Your task to perform on an android device: turn on javascript in the chrome app Image 0: 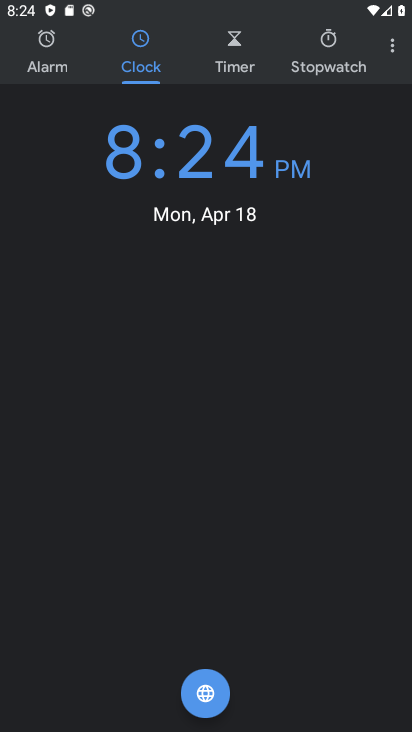
Step 0: press home button
Your task to perform on an android device: turn on javascript in the chrome app Image 1: 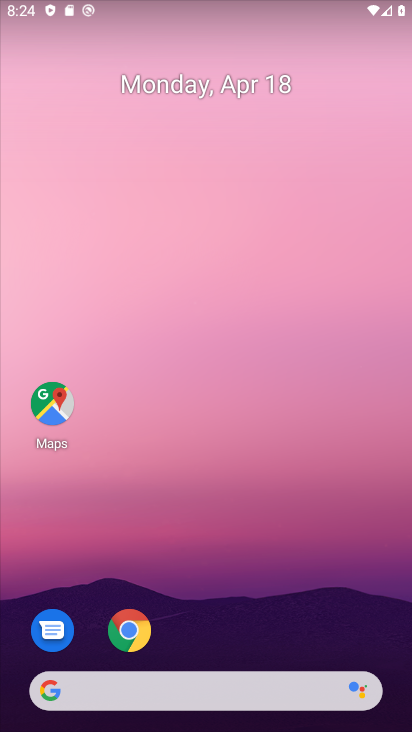
Step 1: click (132, 625)
Your task to perform on an android device: turn on javascript in the chrome app Image 2: 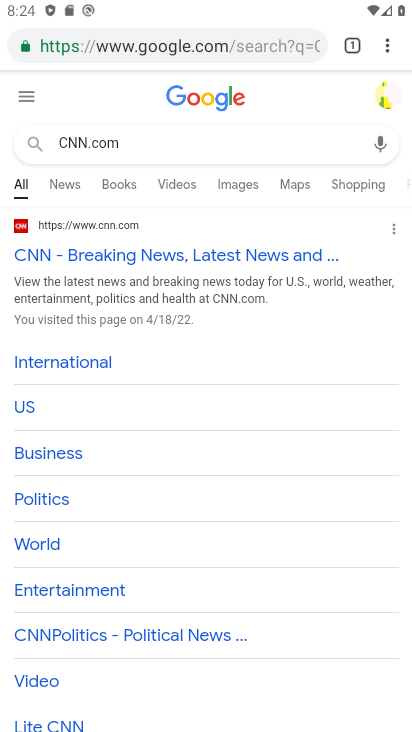
Step 2: click (389, 41)
Your task to perform on an android device: turn on javascript in the chrome app Image 3: 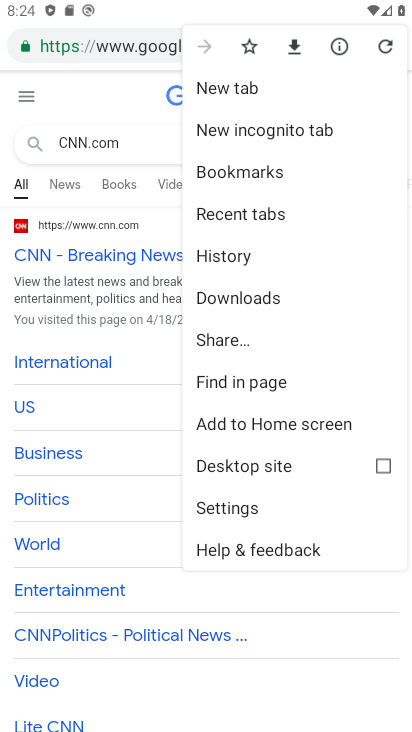
Step 3: click (223, 511)
Your task to perform on an android device: turn on javascript in the chrome app Image 4: 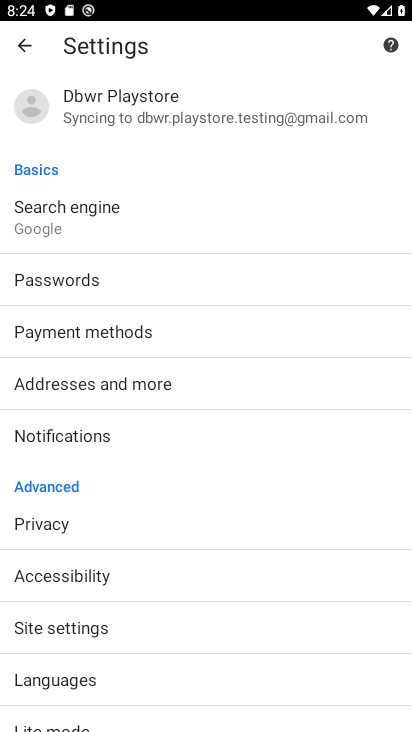
Step 4: click (88, 623)
Your task to perform on an android device: turn on javascript in the chrome app Image 5: 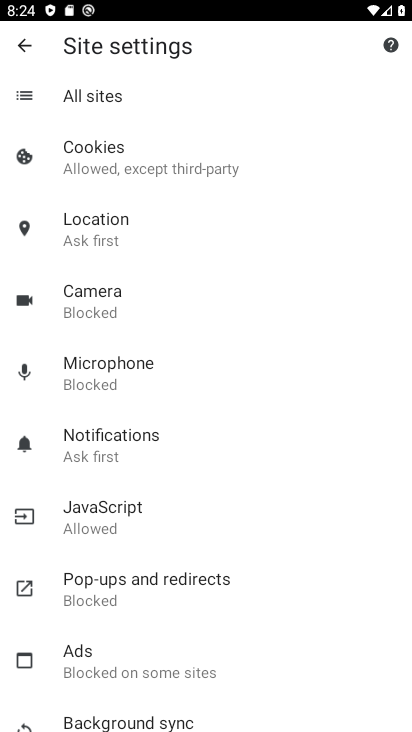
Step 5: click (118, 522)
Your task to perform on an android device: turn on javascript in the chrome app Image 6: 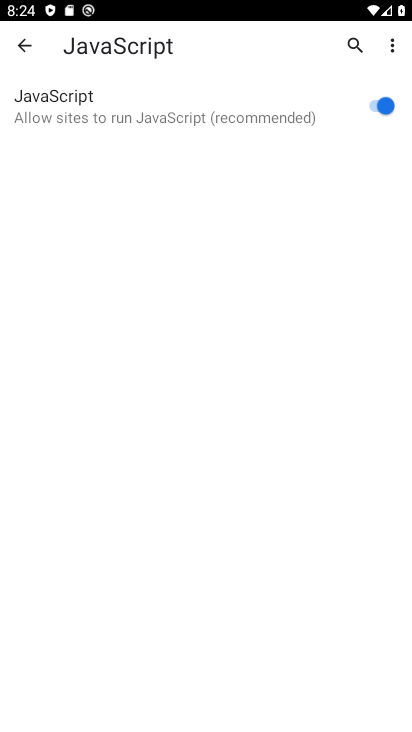
Step 6: task complete